Your task to perform on an android device: Go to Google maps Image 0: 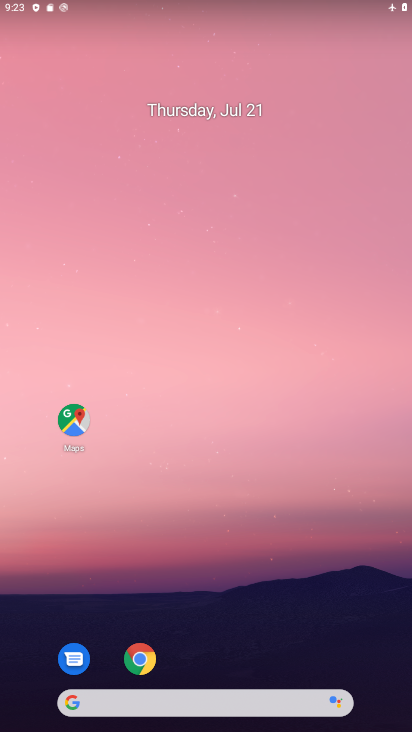
Step 0: drag from (215, 673) to (136, 55)
Your task to perform on an android device: Go to Google maps Image 1: 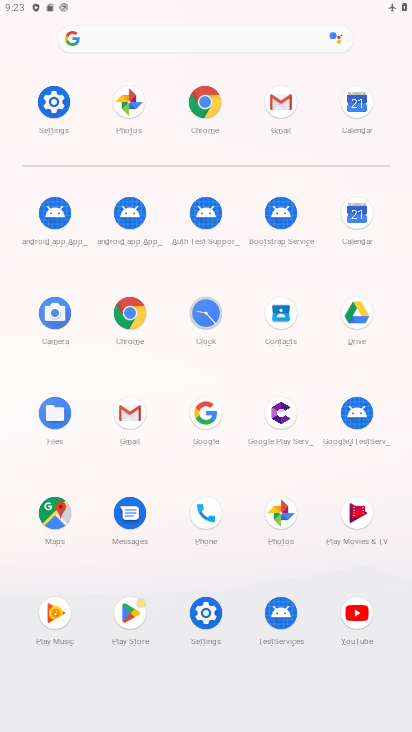
Step 1: click (57, 511)
Your task to perform on an android device: Go to Google maps Image 2: 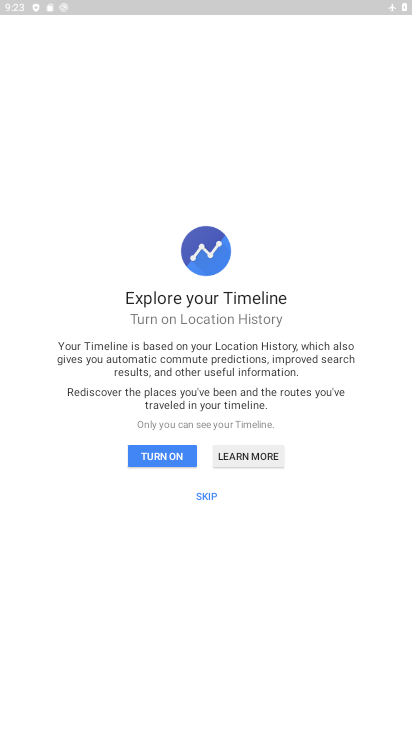
Step 2: click (201, 500)
Your task to perform on an android device: Go to Google maps Image 3: 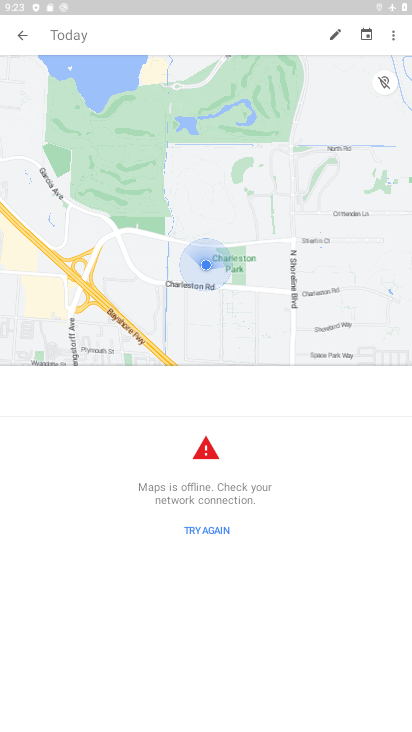
Step 3: task complete